Your task to perform on an android device: open device folders in google photos Image 0: 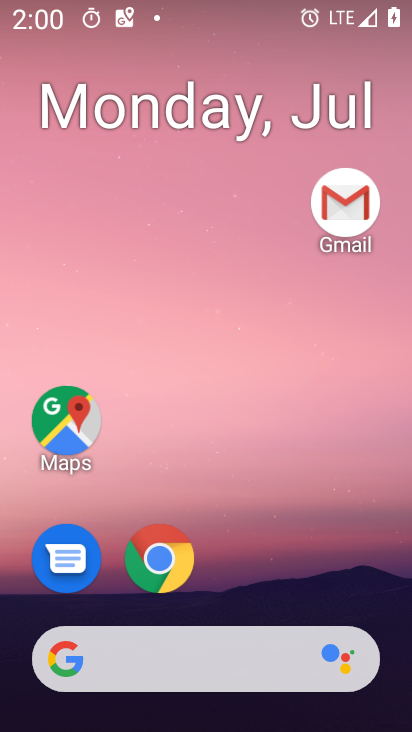
Step 0: drag from (354, 596) to (359, 280)
Your task to perform on an android device: open device folders in google photos Image 1: 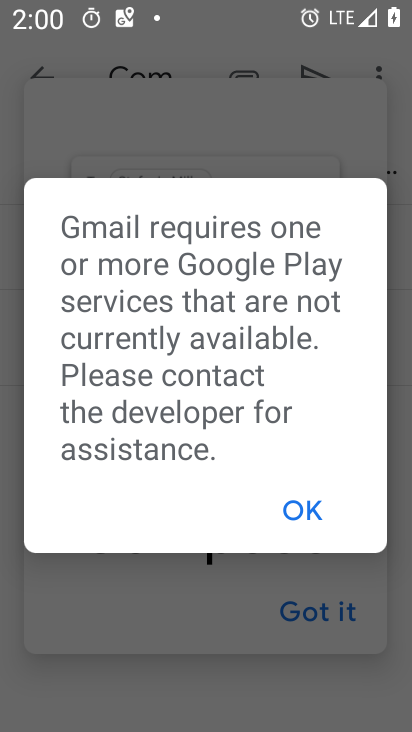
Step 1: press home button
Your task to perform on an android device: open device folders in google photos Image 2: 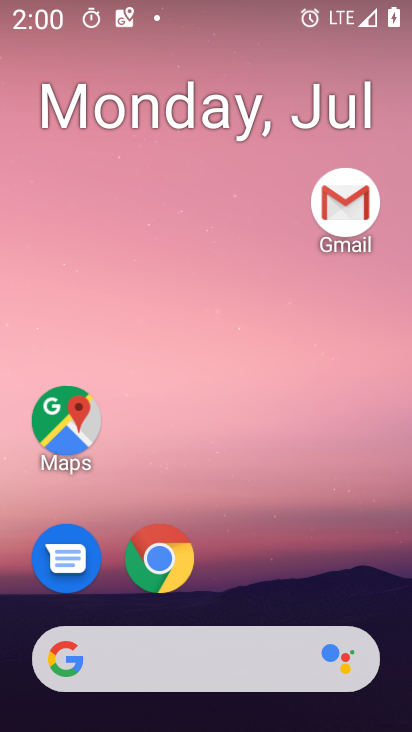
Step 2: drag from (336, 560) to (348, 204)
Your task to perform on an android device: open device folders in google photos Image 3: 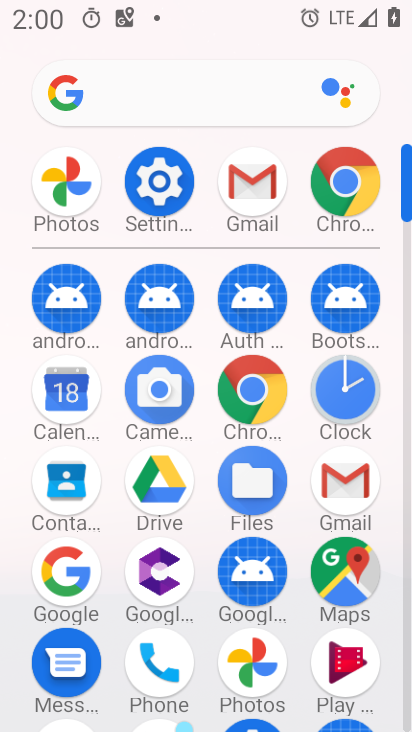
Step 3: click (260, 653)
Your task to perform on an android device: open device folders in google photos Image 4: 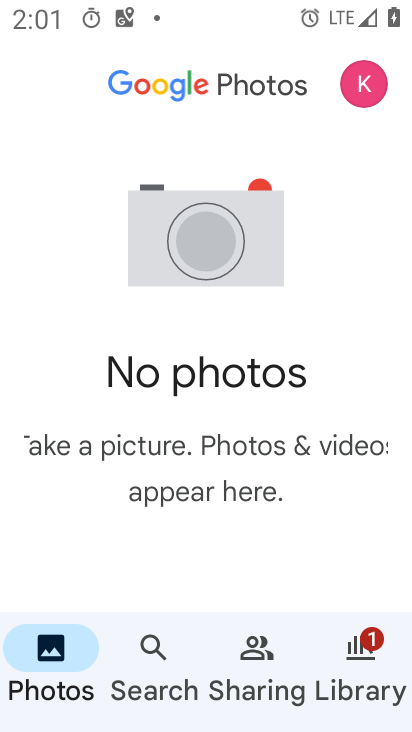
Step 4: click (356, 97)
Your task to perform on an android device: open device folders in google photos Image 5: 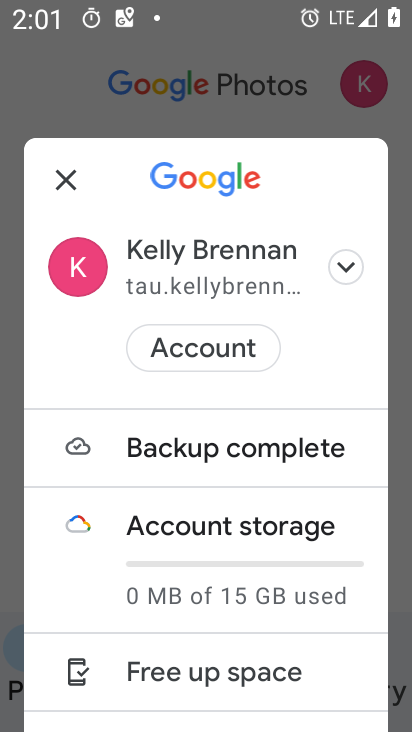
Step 5: task complete